Your task to perform on an android device: check data usage Image 0: 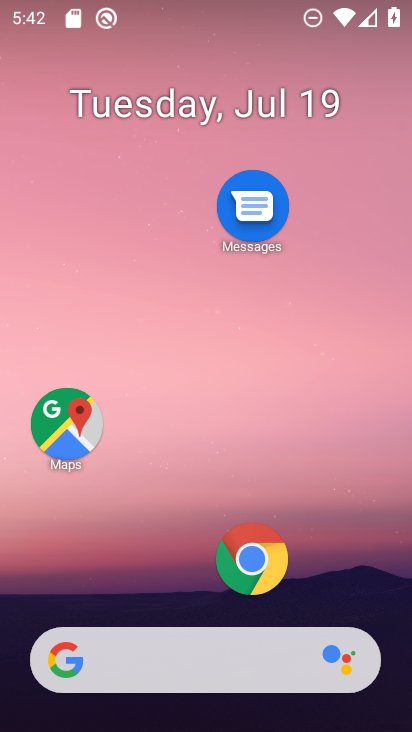
Step 0: drag from (183, 611) to (294, 15)
Your task to perform on an android device: check data usage Image 1: 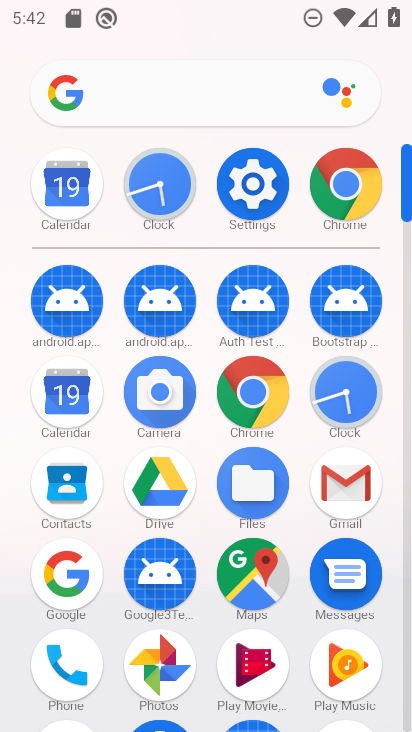
Step 1: click (262, 179)
Your task to perform on an android device: check data usage Image 2: 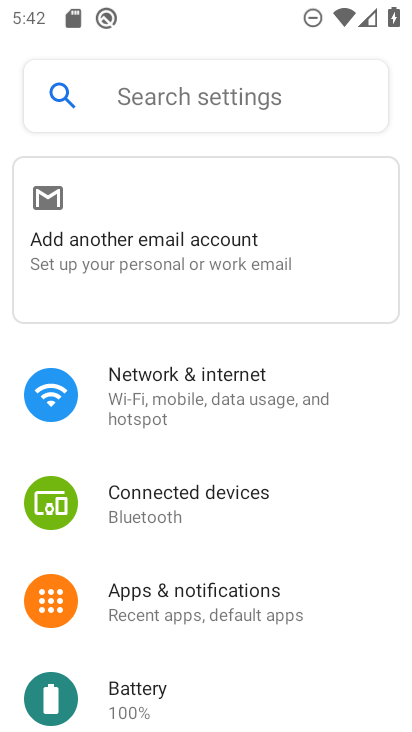
Step 2: click (188, 387)
Your task to perform on an android device: check data usage Image 3: 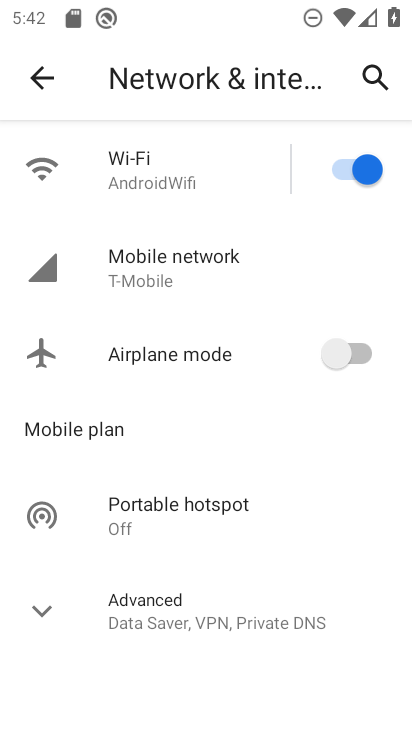
Step 3: click (191, 267)
Your task to perform on an android device: check data usage Image 4: 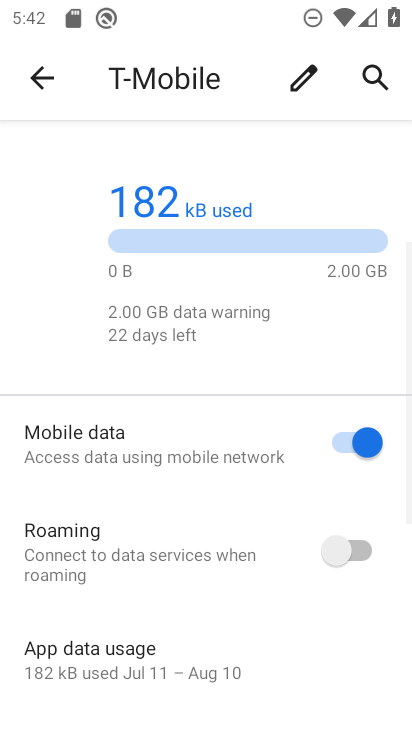
Step 4: click (164, 662)
Your task to perform on an android device: check data usage Image 5: 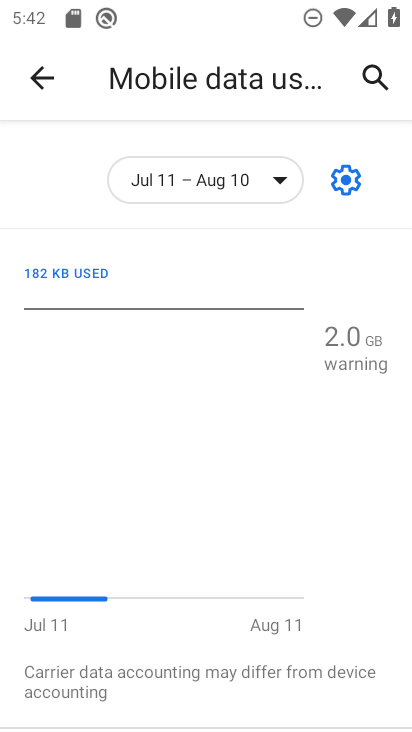
Step 5: task complete